Your task to perform on an android device: turn on data saver in the chrome app Image 0: 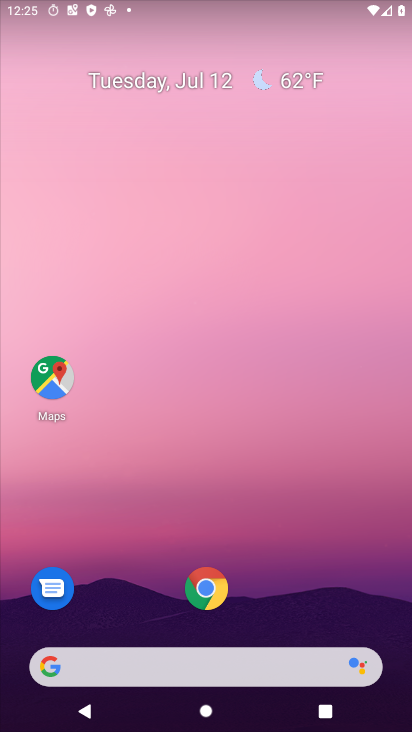
Step 0: drag from (171, 332) to (161, 150)
Your task to perform on an android device: turn on data saver in the chrome app Image 1: 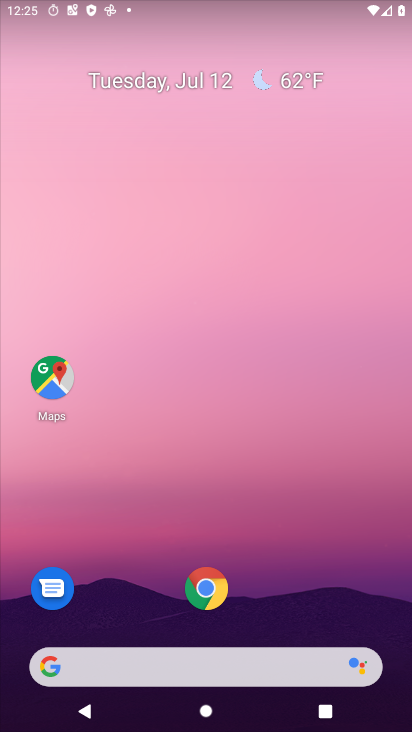
Step 1: click (208, 594)
Your task to perform on an android device: turn on data saver in the chrome app Image 2: 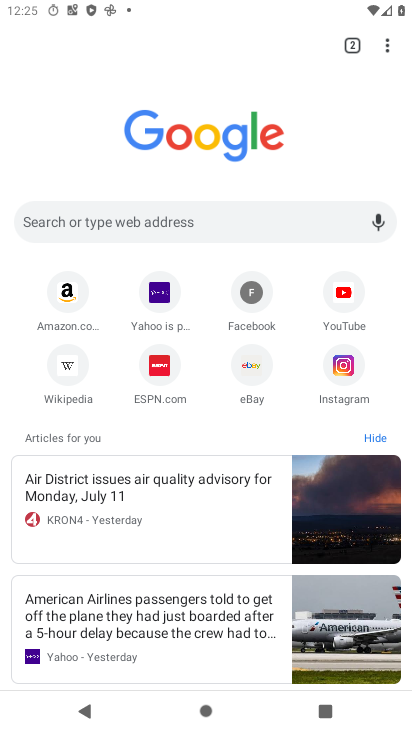
Step 2: click (386, 36)
Your task to perform on an android device: turn on data saver in the chrome app Image 3: 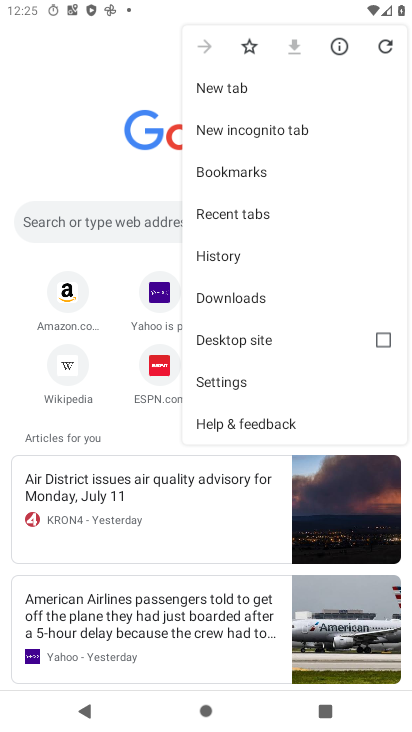
Step 3: click (231, 376)
Your task to perform on an android device: turn on data saver in the chrome app Image 4: 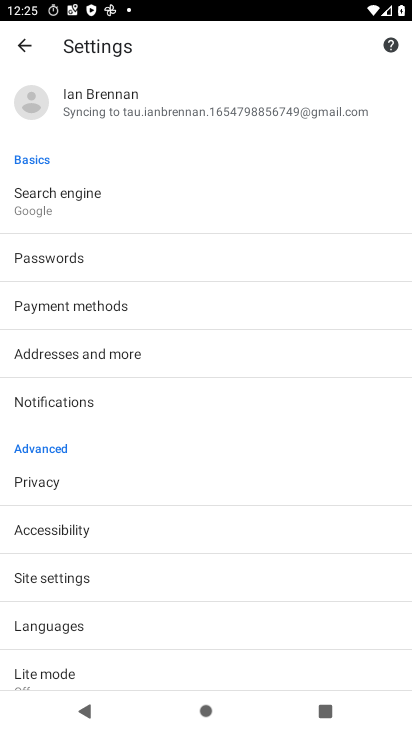
Step 4: click (68, 669)
Your task to perform on an android device: turn on data saver in the chrome app Image 5: 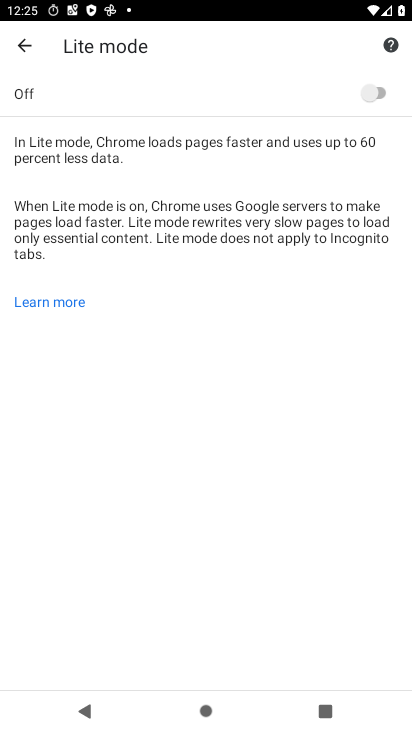
Step 5: click (379, 100)
Your task to perform on an android device: turn on data saver in the chrome app Image 6: 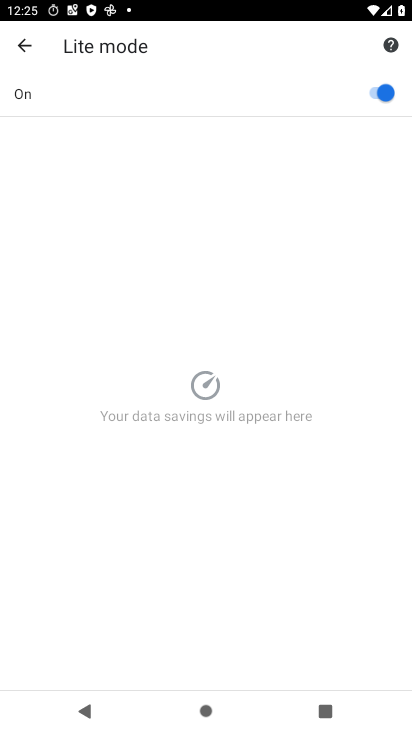
Step 6: task complete